Your task to perform on an android device: Search for vegetarian restaurants on Maps Image 0: 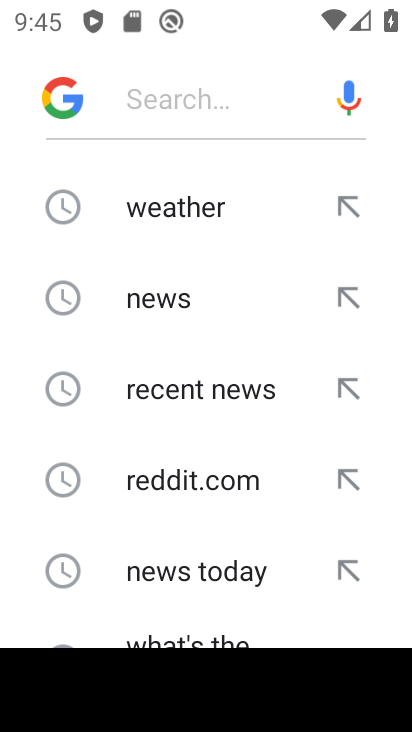
Step 0: press home button
Your task to perform on an android device: Search for vegetarian restaurants on Maps Image 1: 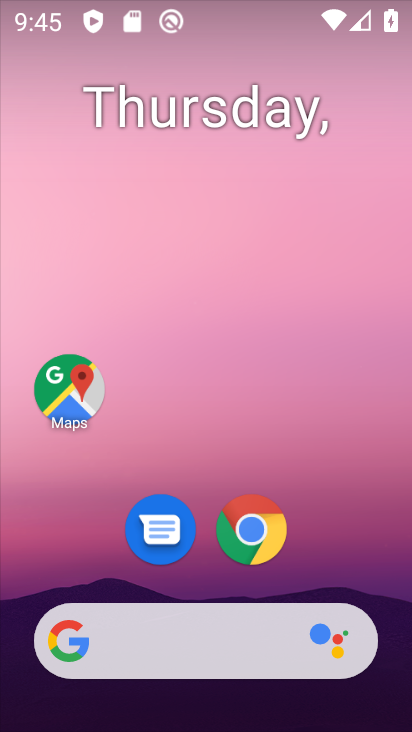
Step 1: click (66, 388)
Your task to perform on an android device: Search for vegetarian restaurants on Maps Image 2: 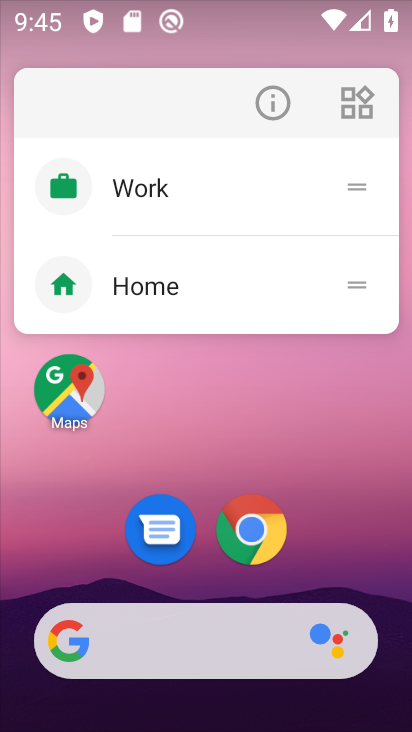
Step 2: click (72, 375)
Your task to perform on an android device: Search for vegetarian restaurants on Maps Image 3: 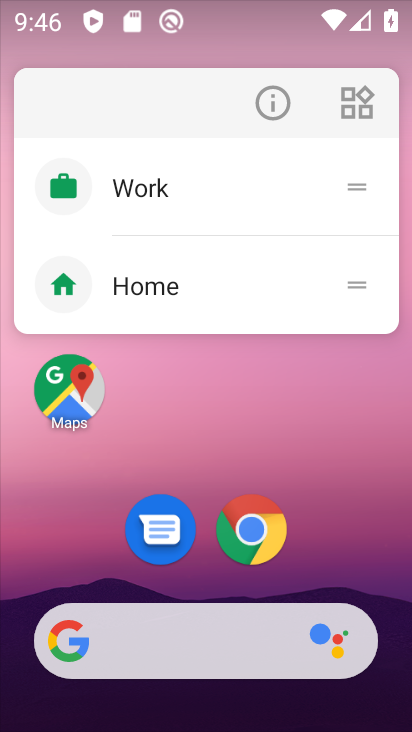
Step 3: click (73, 367)
Your task to perform on an android device: Search for vegetarian restaurants on Maps Image 4: 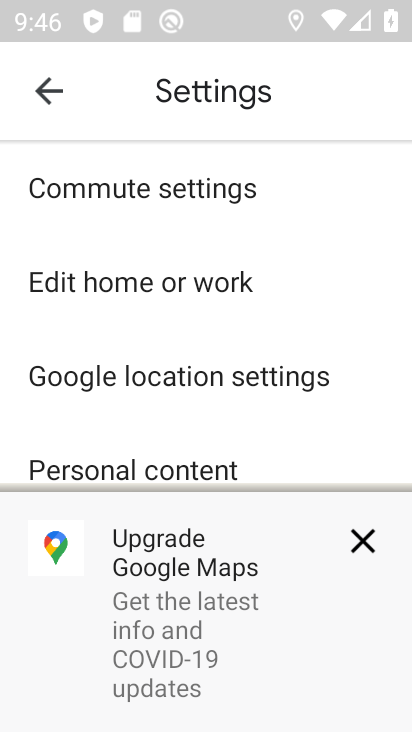
Step 4: click (36, 111)
Your task to perform on an android device: Search for vegetarian restaurants on Maps Image 5: 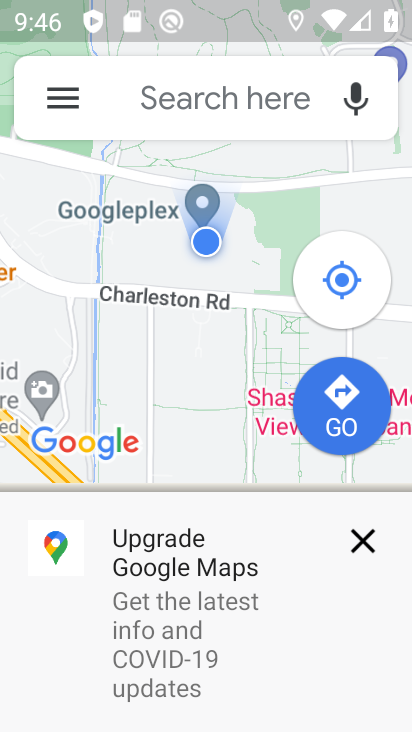
Step 5: click (188, 104)
Your task to perform on an android device: Search for vegetarian restaurants on Maps Image 6: 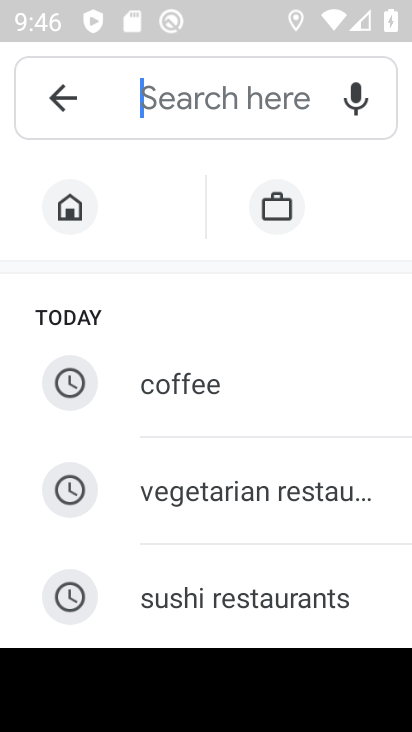
Step 6: type "vegetarian restaurant"
Your task to perform on an android device: Search for vegetarian restaurants on Maps Image 7: 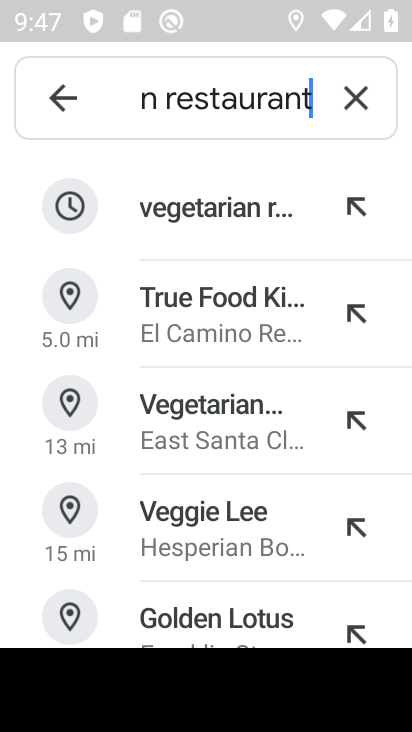
Step 7: click (185, 210)
Your task to perform on an android device: Search for vegetarian restaurants on Maps Image 8: 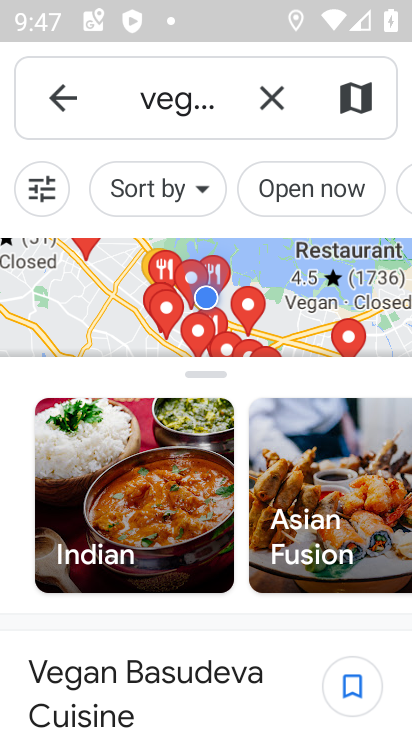
Step 8: task complete